Your task to perform on an android device: change the clock style Image 0: 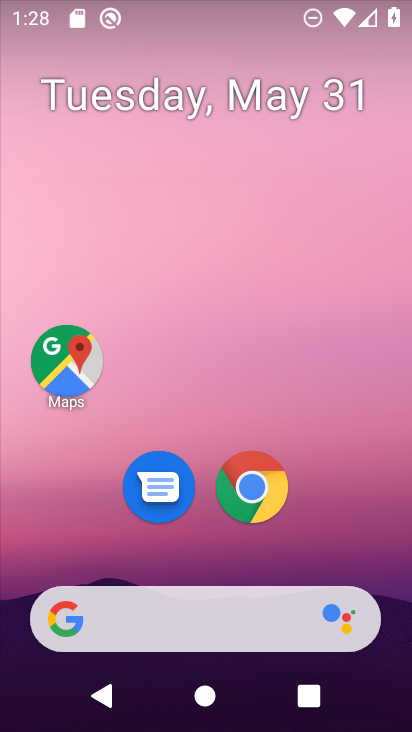
Step 0: drag from (125, 577) to (215, 117)
Your task to perform on an android device: change the clock style Image 1: 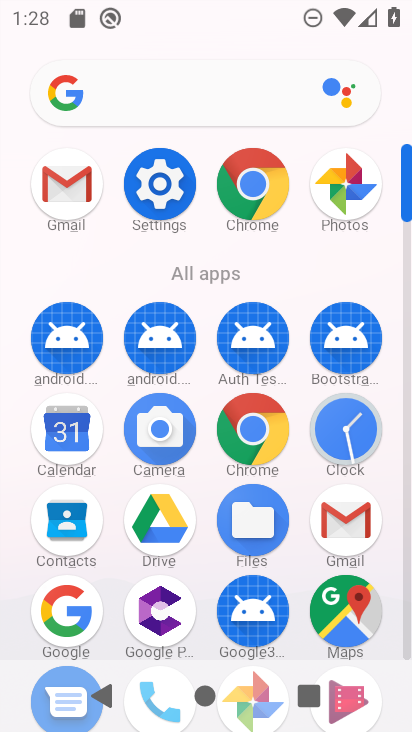
Step 1: click (344, 421)
Your task to perform on an android device: change the clock style Image 2: 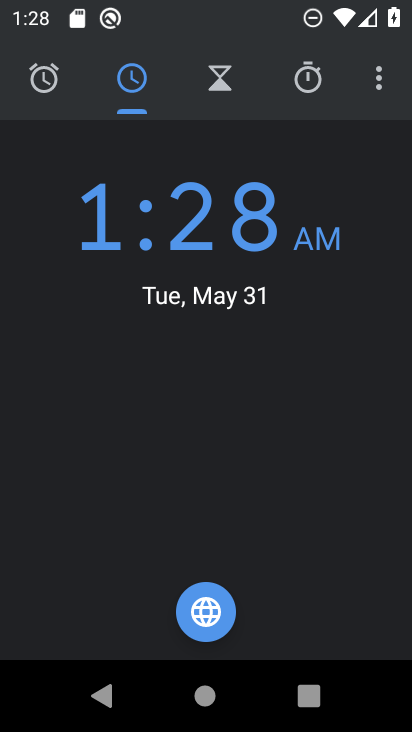
Step 2: click (362, 59)
Your task to perform on an android device: change the clock style Image 3: 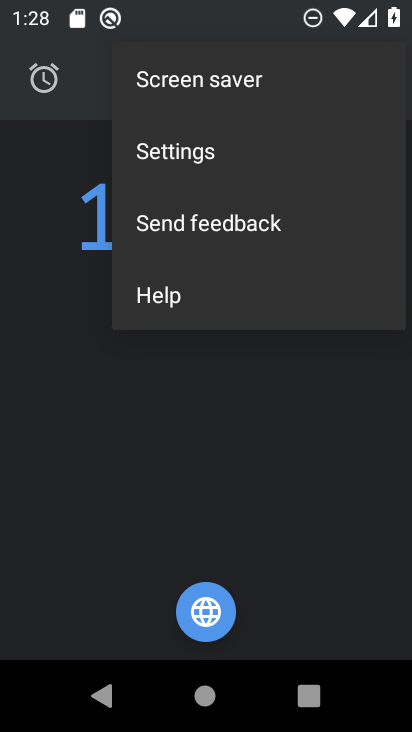
Step 3: click (316, 151)
Your task to perform on an android device: change the clock style Image 4: 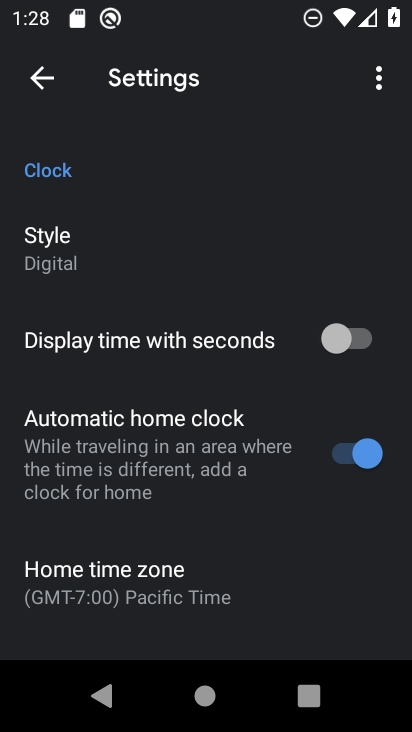
Step 4: click (225, 239)
Your task to perform on an android device: change the clock style Image 5: 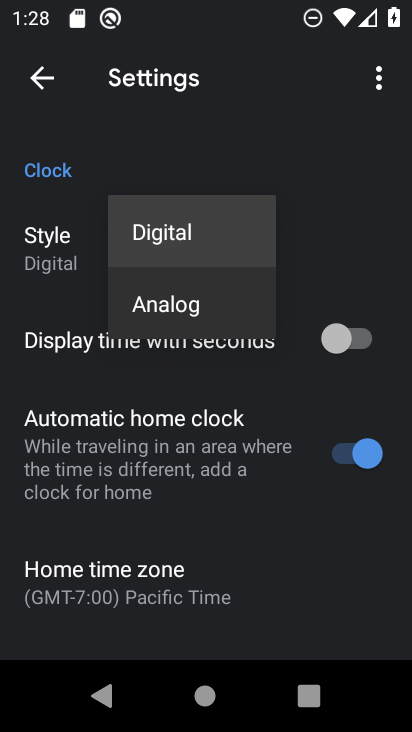
Step 5: click (222, 293)
Your task to perform on an android device: change the clock style Image 6: 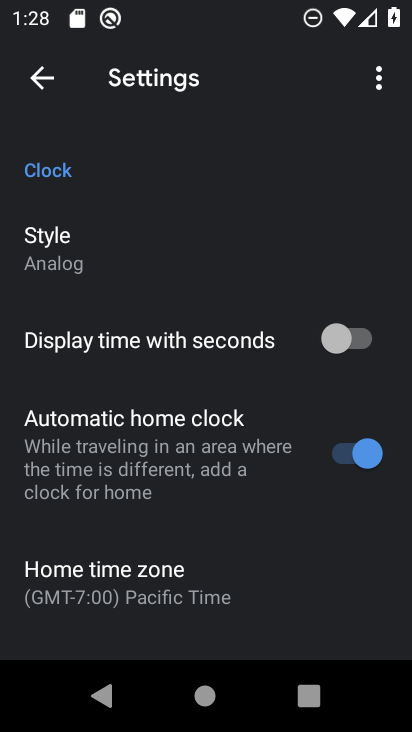
Step 6: task complete